Your task to perform on an android device: all mails in gmail Image 0: 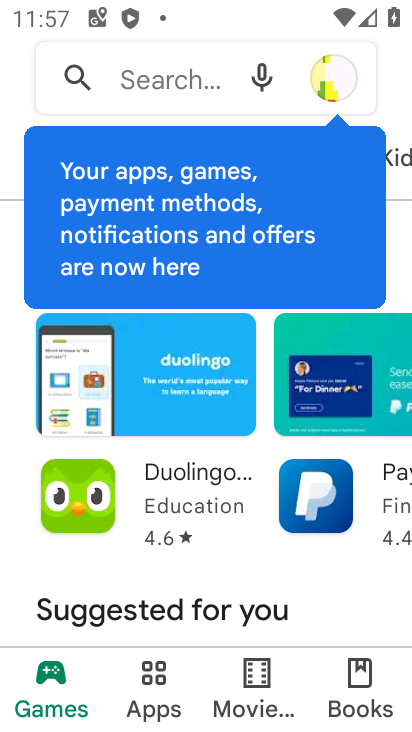
Step 0: press home button
Your task to perform on an android device: all mails in gmail Image 1: 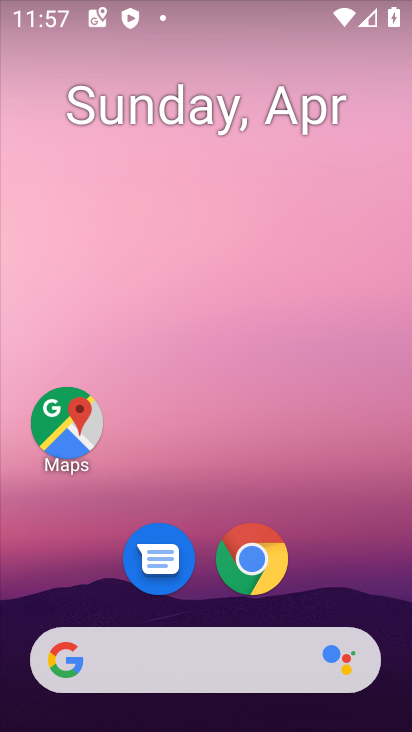
Step 1: drag from (319, 556) to (319, 87)
Your task to perform on an android device: all mails in gmail Image 2: 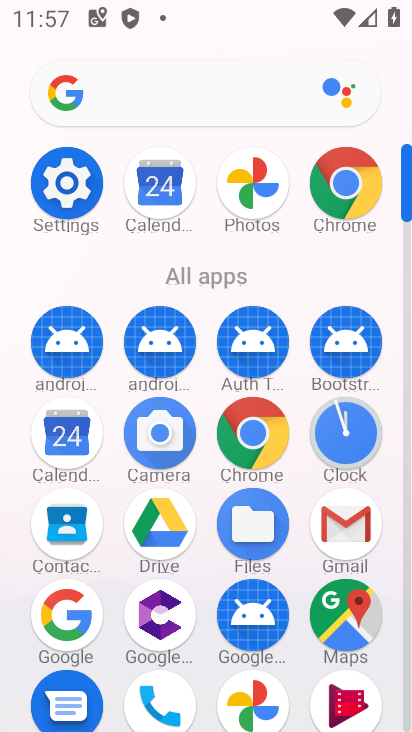
Step 2: click (338, 530)
Your task to perform on an android device: all mails in gmail Image 3: 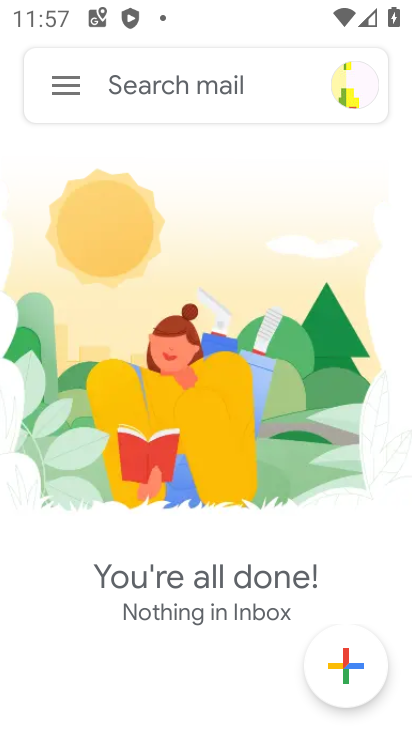
Step 3: click (68, 85)
Your task to perform on an android device: all mails in gmail Image 4: 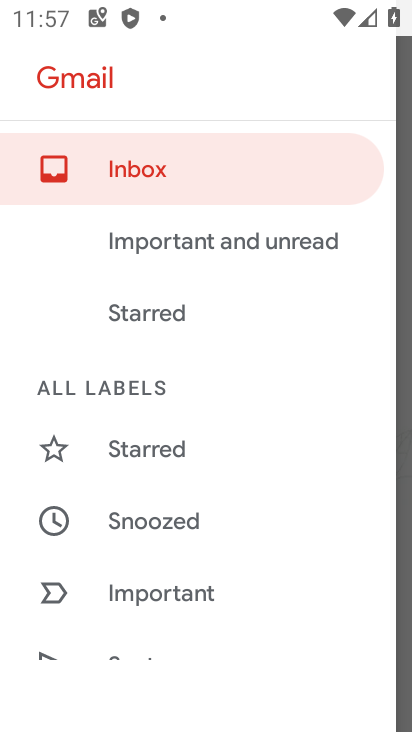
Step 4: drag from (213, 609) to (258, 400)
Your task to perform on an android device: all mails in gmail Image 5: 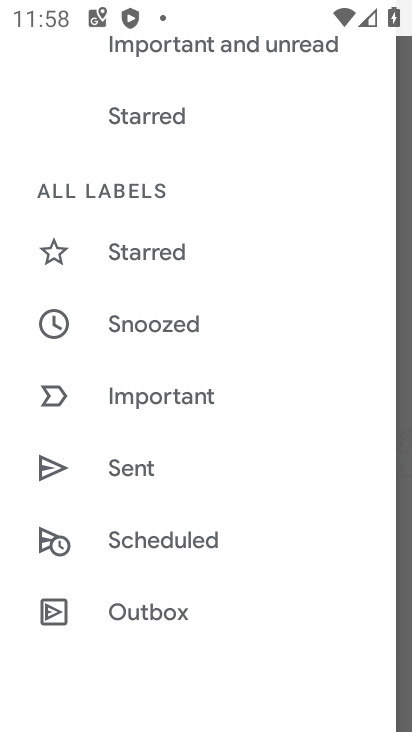
Step 5: drag from (92, 227) to (134, 580)
Your task to perform on an android device: all mails in gmail Image 6: 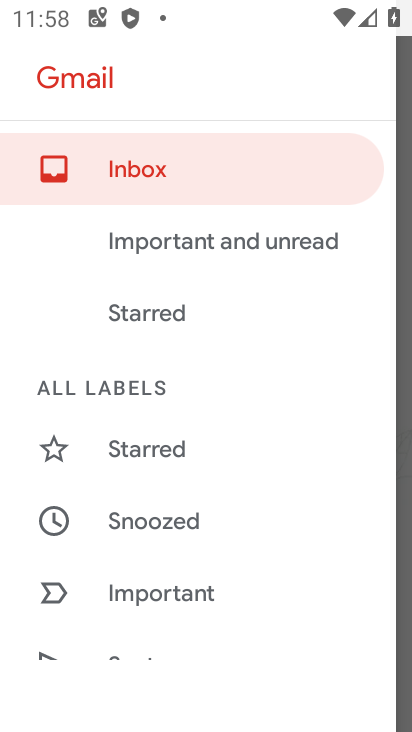
Step 6: drag from (162, 590) to (250, 165)
Your task to perform on an android device: all mails in gmail Image 7: 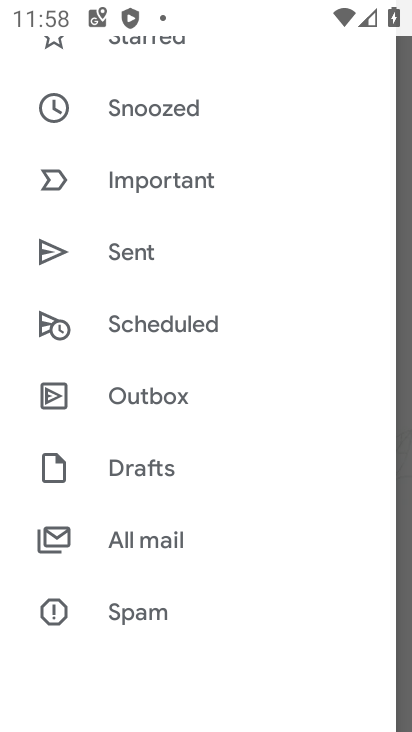
Step 7: click (202, 523)
Your task to perform on an android device: all mails in gmail Image 8: 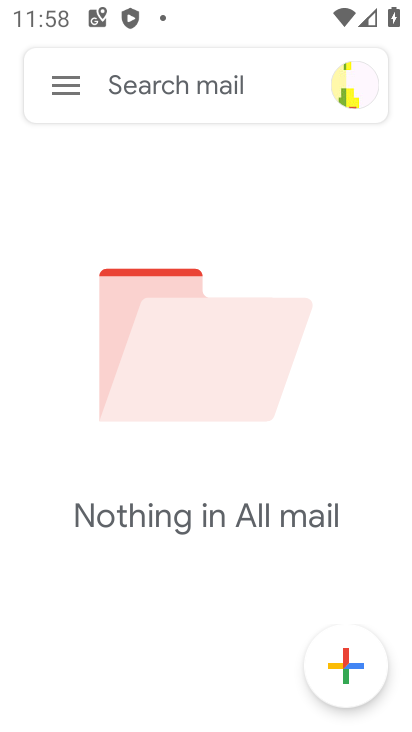
Step 8: task complete